Your task to perform on an android device: Find coffee shops on Maps Image 0: 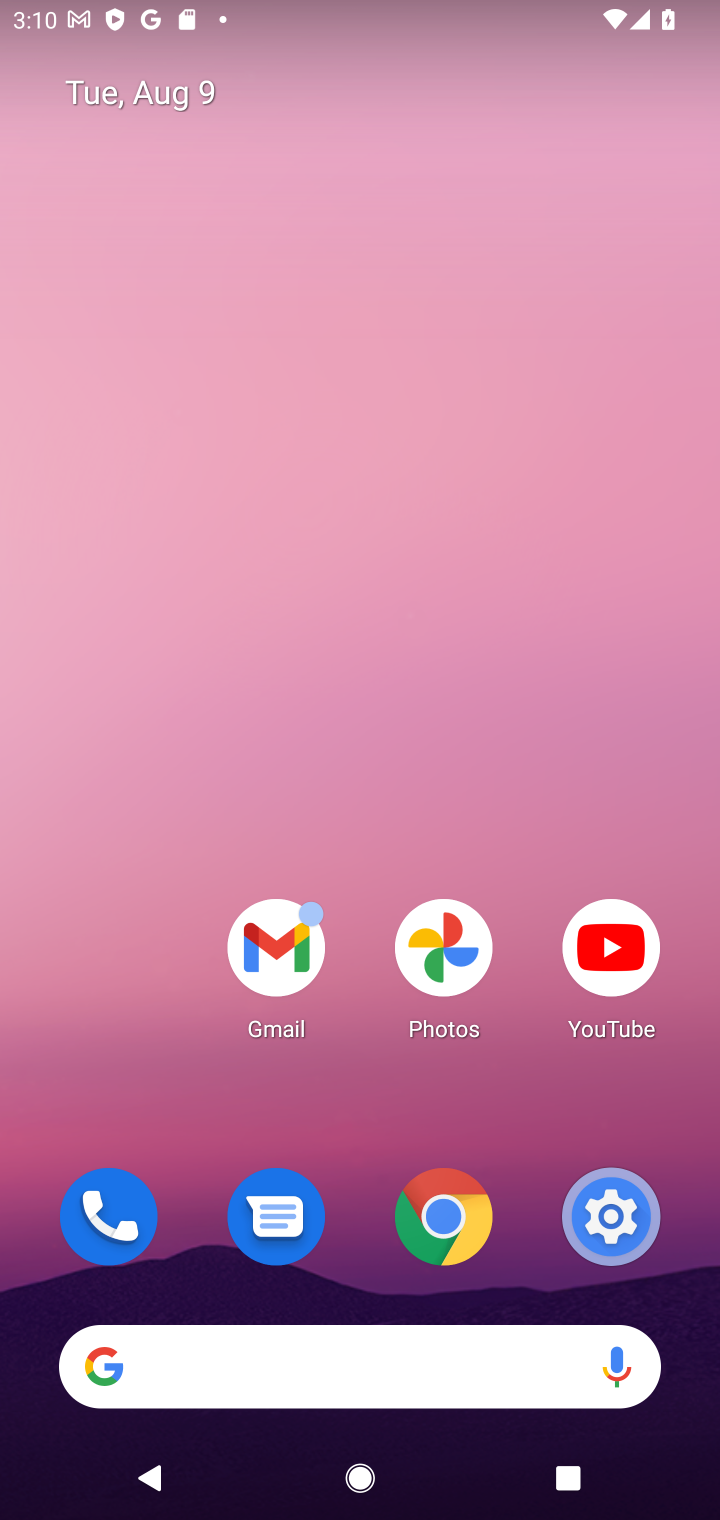
Step 0: drag from (359, 1119) to (359, 115)
Your task to perform on an android device: Find coffee shops on Maps Image 1: 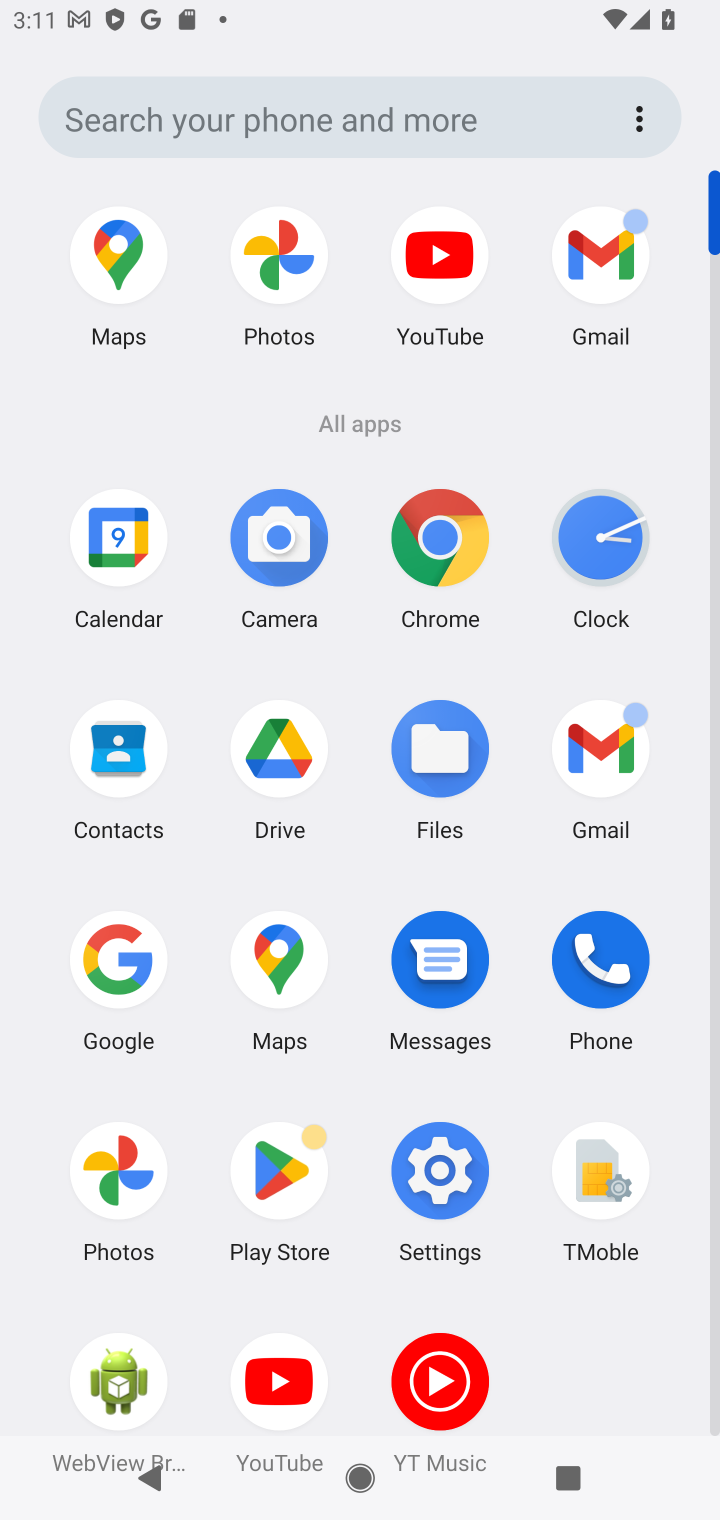
Step 1: click (294, 967)
Your task to perform on an android device: Find coffee shops on Maps Image 2: 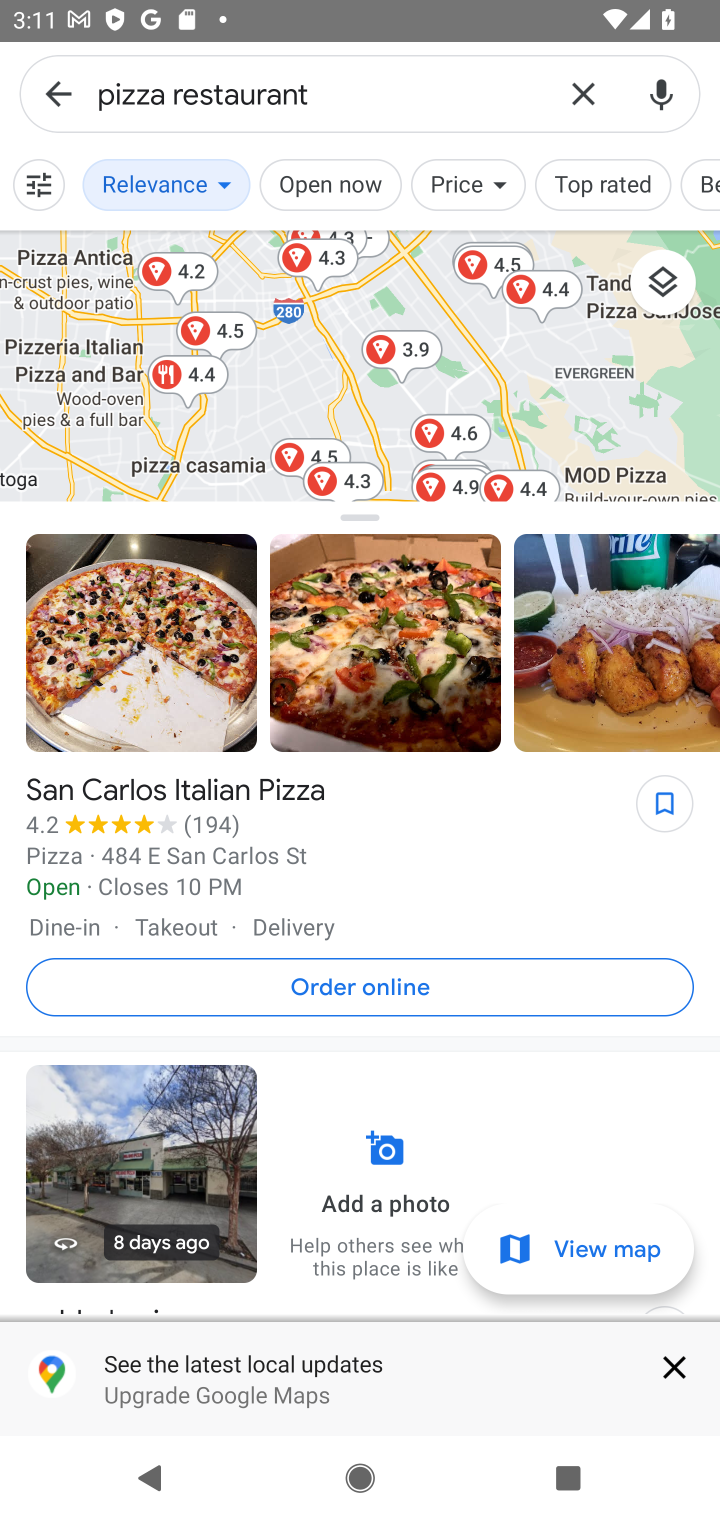
Step 2: click (589, 100)
Your task to perform on an android device: Find coffee shops on Maps Image 3: 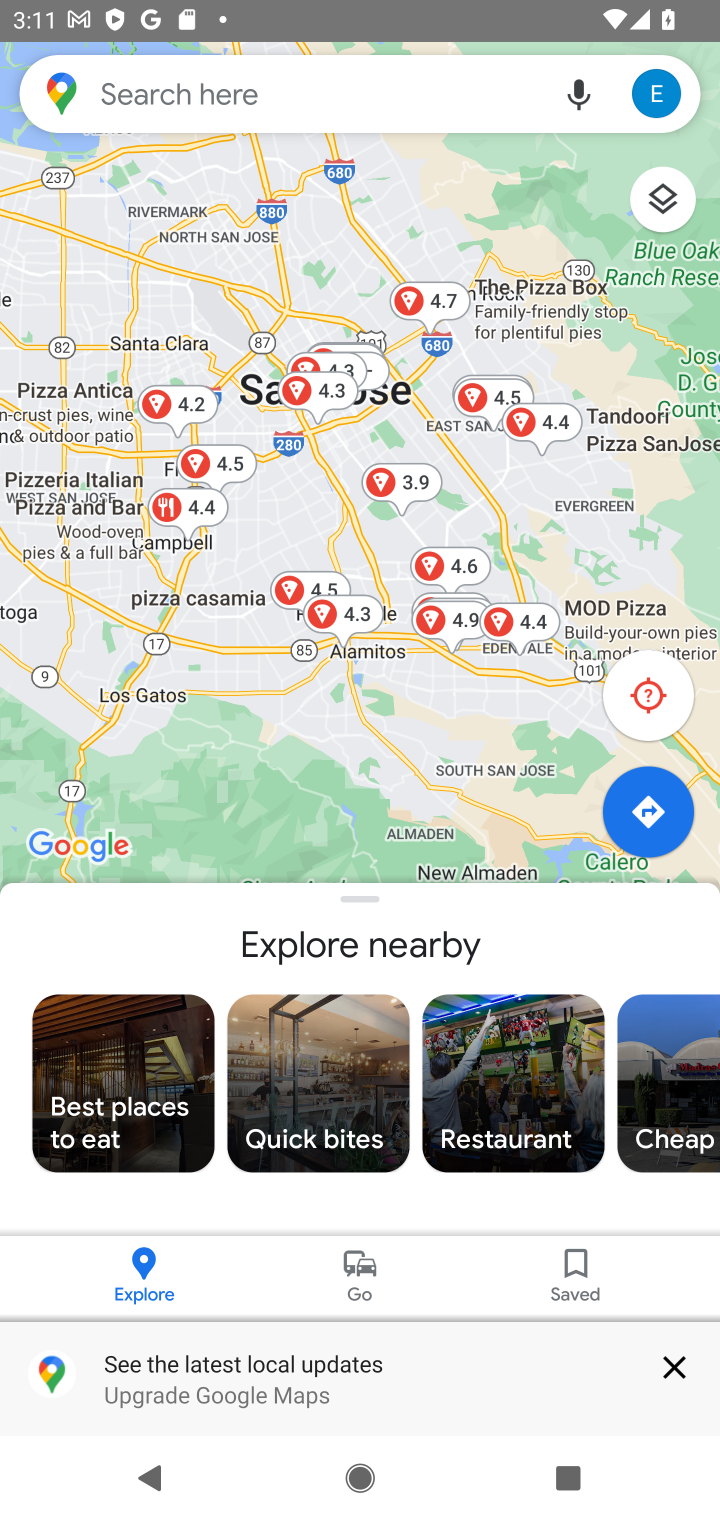
Step 3: click (476, 104)
Your task to perform on an android device: Find coffee shops on Maps Image 4: 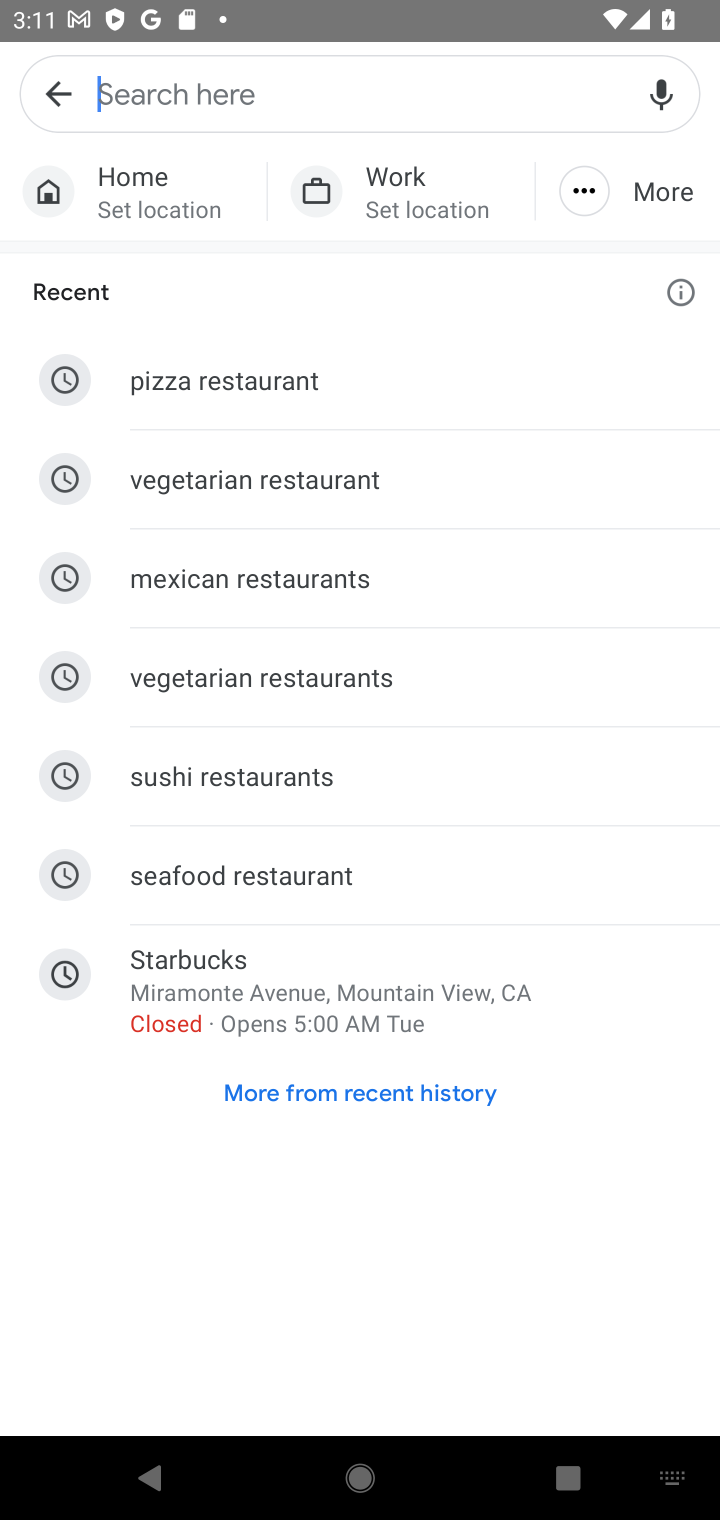
Step 4: type "coffee shops"
Your task to perform on an android device: Find coffee shops on Maps Image 5: 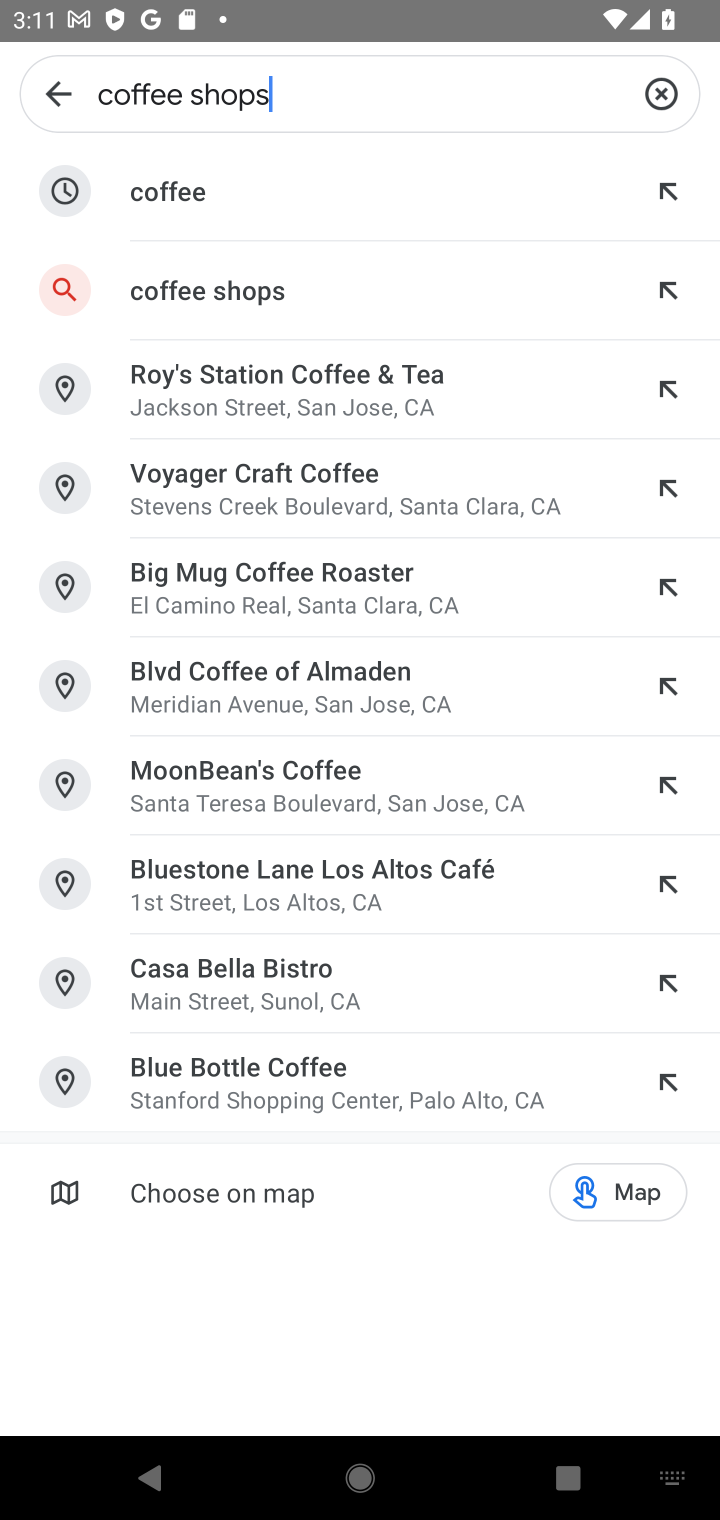
Step 5: click (406, 292)
Your task to perform on an android device: Find coffee shops on Maps Image 6: 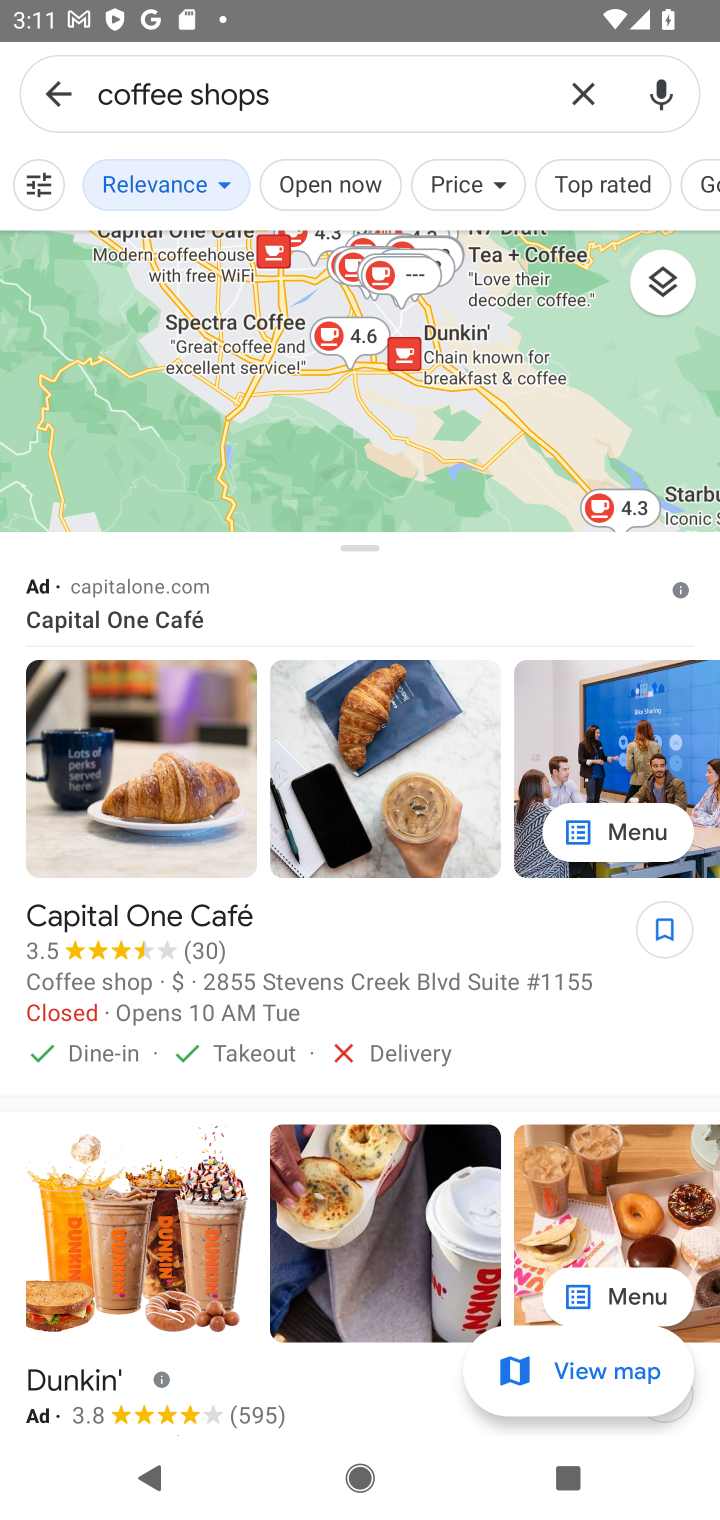
Step 6: task complete